Your task to perform on an android device: Toggle the flashlight Image 0: 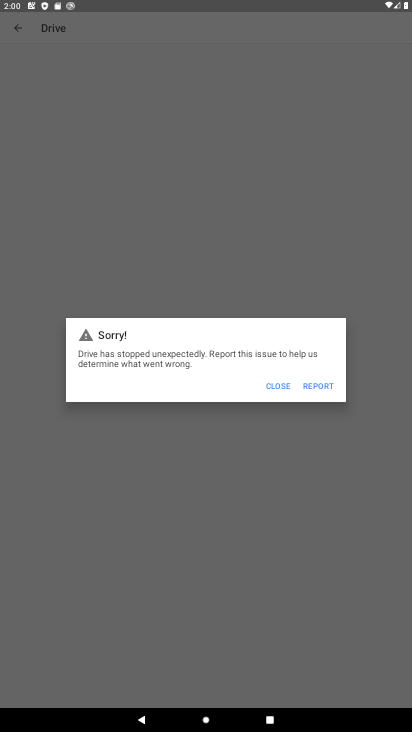
Step 0: press home button
Your task to perform on an android device: Toggle the flashlight Image 1: 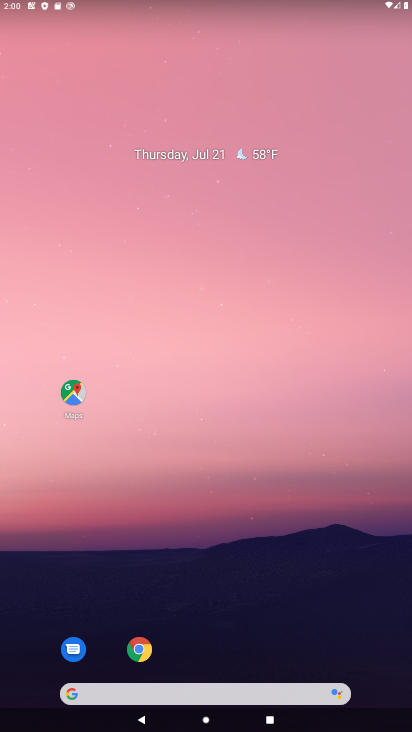
Step 1: drag from (313, 632) to (313, 150)
Your task to perform on an android device: Toggle the flashlight Image 2: 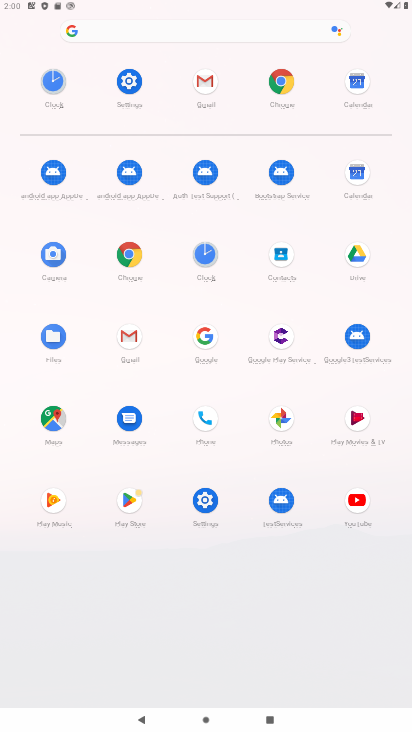
Step 2: click (112, 88)
Your task to perform on an android device: Toggle the flashlight Image 3: 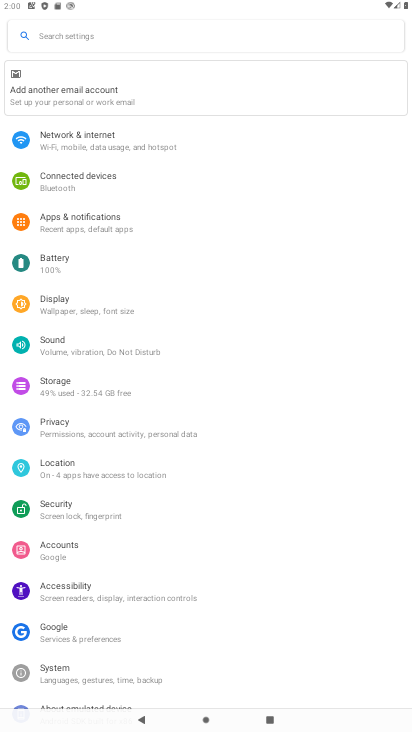
Step 3: click (161, 228)
Your task to perform on an android device: Toggle the flashlight Image 4: 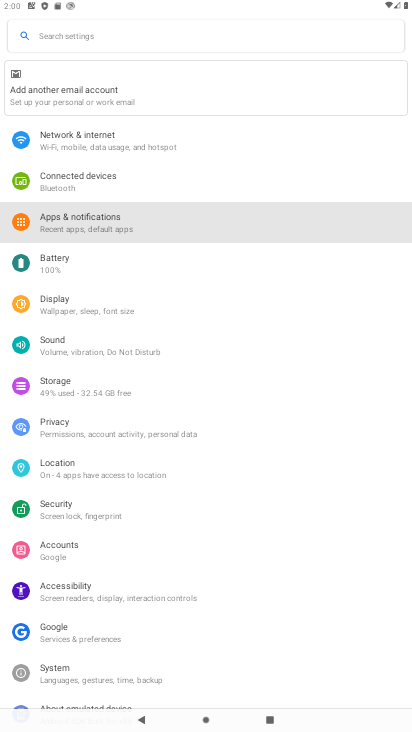
Step 4: task complete